Your task to perform on an android device: turn off wifi Image 0: 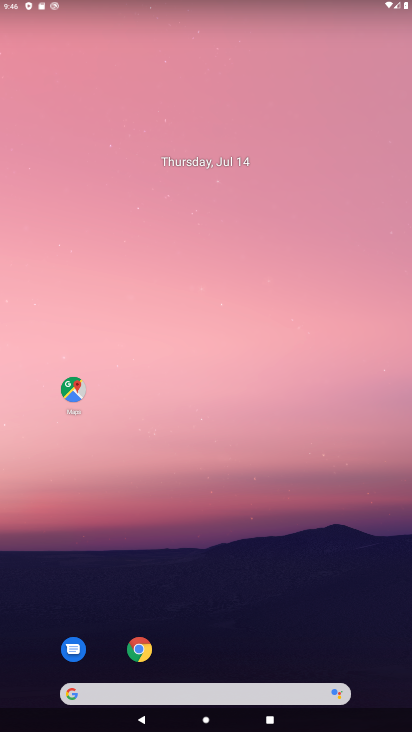
Step 0: drag from (186, 612) to (237, 8)
Your task to perform on an android device: turn off wifi Image 1: 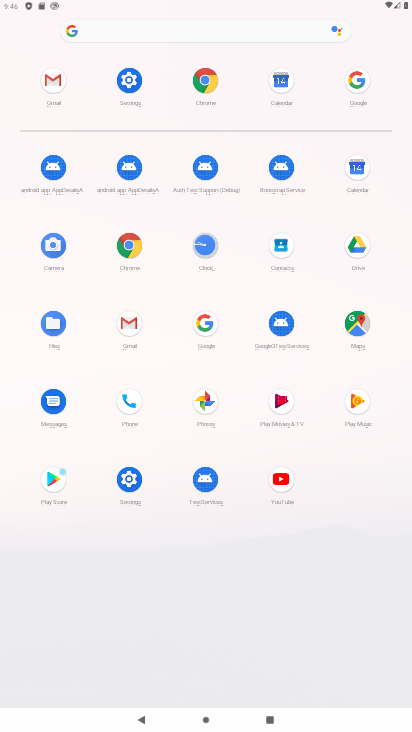
Step 1: click (102, 92)
Your task to perform on an android device: turn off wifi Image 2: 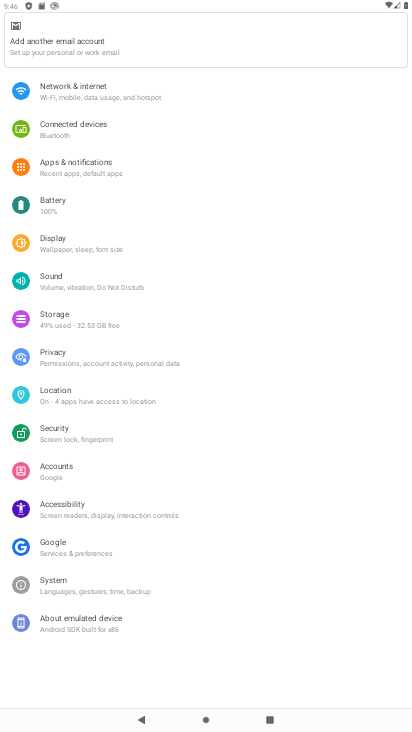
Step 2: click (123, 88)
Your task to perform on an android device: turn off wifi Image 3: 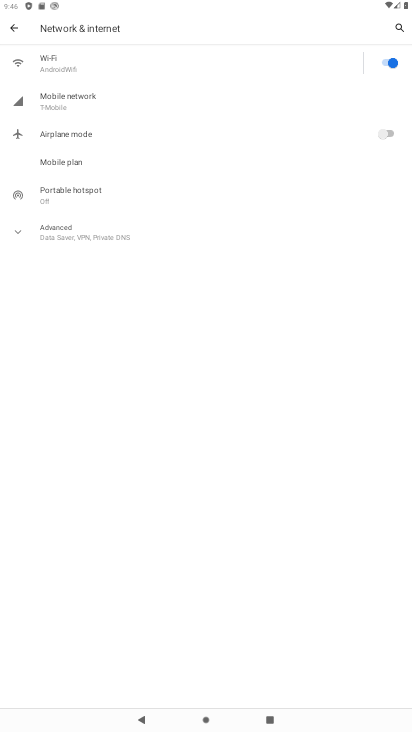
Step 3: click (376, 63)
Your task to perform on an android device: turn off wifi Image 4: 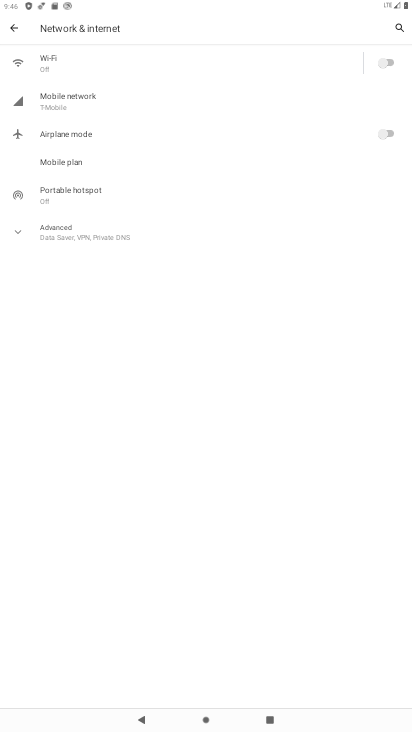
Step 4: task complete